Your task to perform on an android device: open a bookmark in the chrome app Image 0: 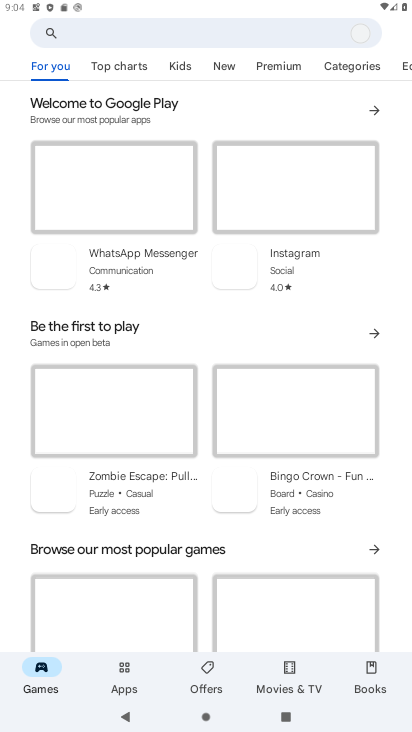
Step 0: press home button
Your task to perform on an android device: open a bookmark in the chrome app Image 1: 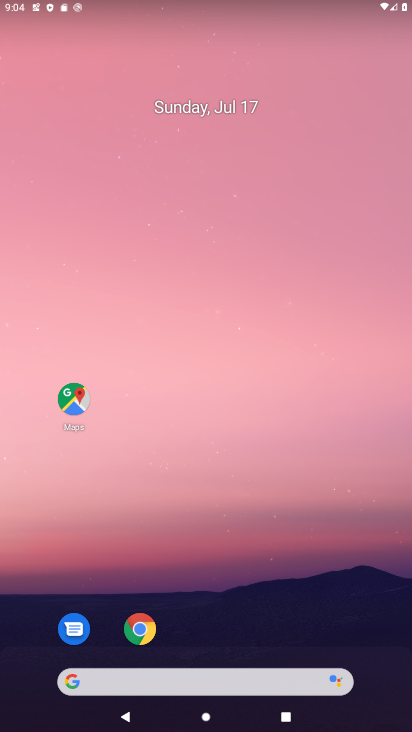
Step 1: click (135, 648)
Your task to perform on an android device: open a bookmark in the chrome app Image 2: 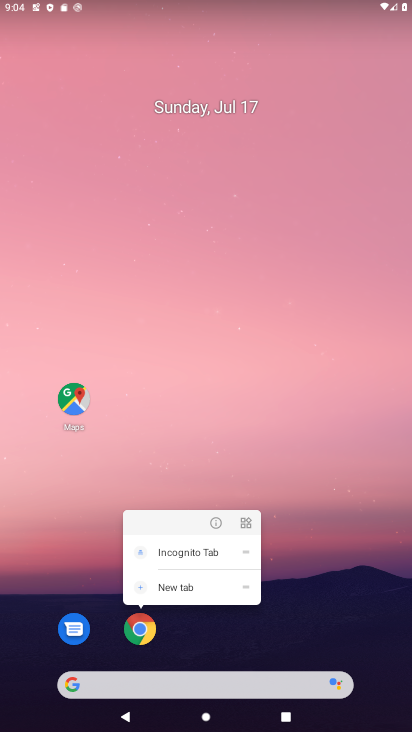
Step 2: click (138, 647)
Your task to perform on an android device: open a bookmark in the chrome app Image 3: 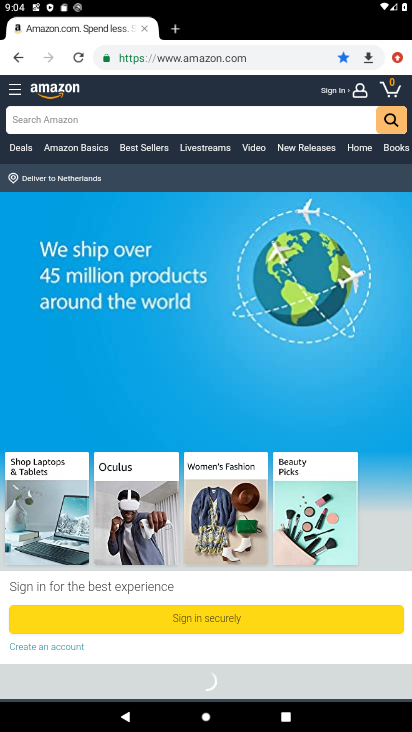
Step 3: click (397, 61)
Your task to perform on an android device: open a bookmark in the chrome app Image 4: 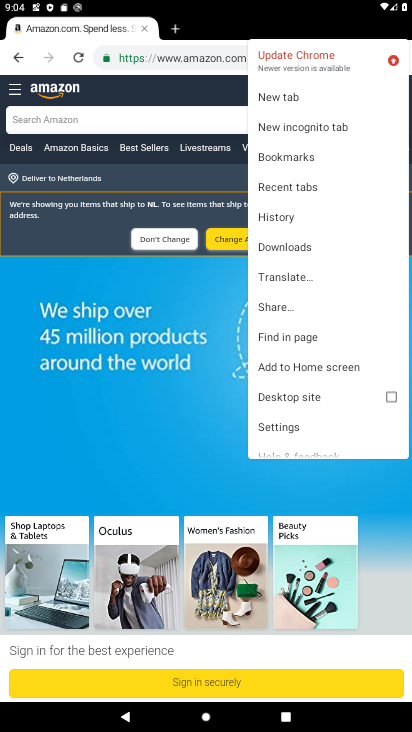
Step 4: click (291, 155)
Your task to perform on an android device: open a bookmark in the chrome app Image 5: 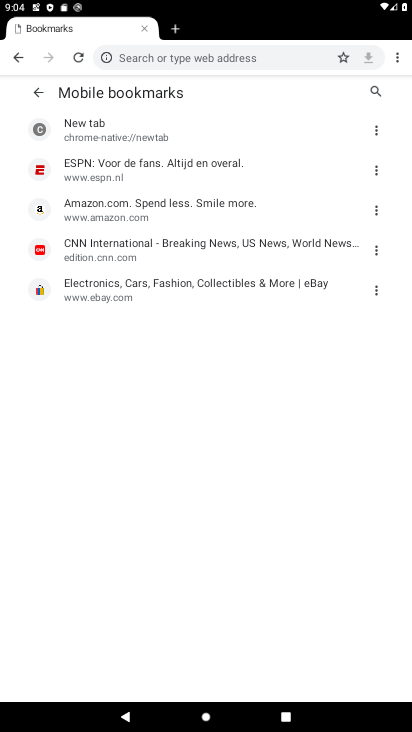
Step 5: click (112, 246)
Your task to perform on an android device: open a bookmark in the chrome app Image 6: 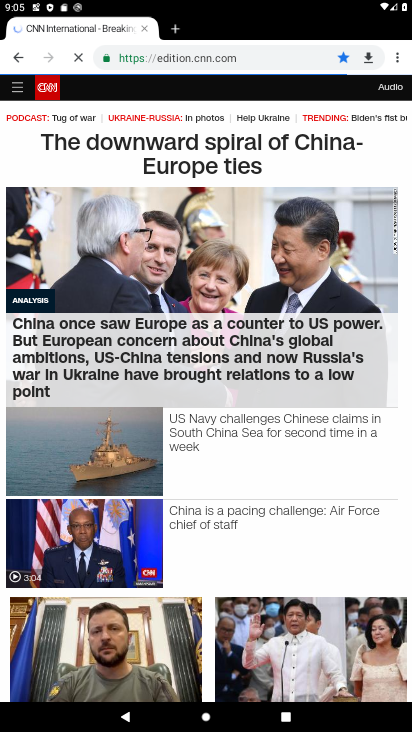
Step 6: task complete